Your task to perform on an android device: Check the news Image 0: 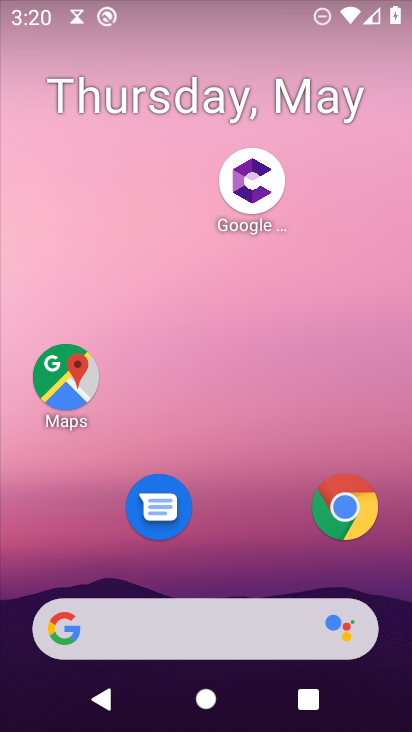
Step 0: click (154, 627)
Your task to perform on an android device: Check the news Image 1: 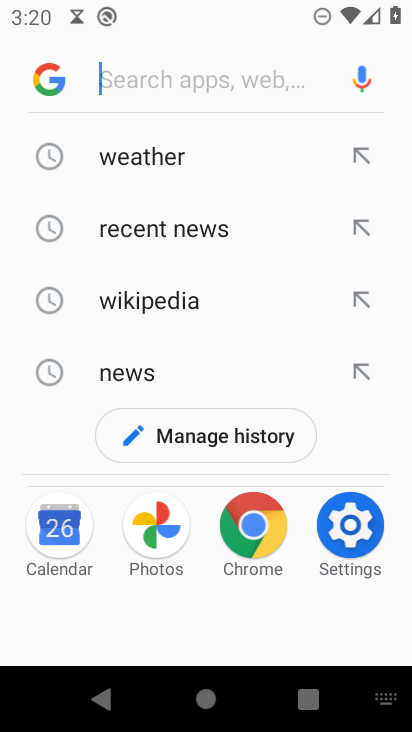
Step 1: click (125, 375)
Your task to perform on an android device: Check the news Image 2: 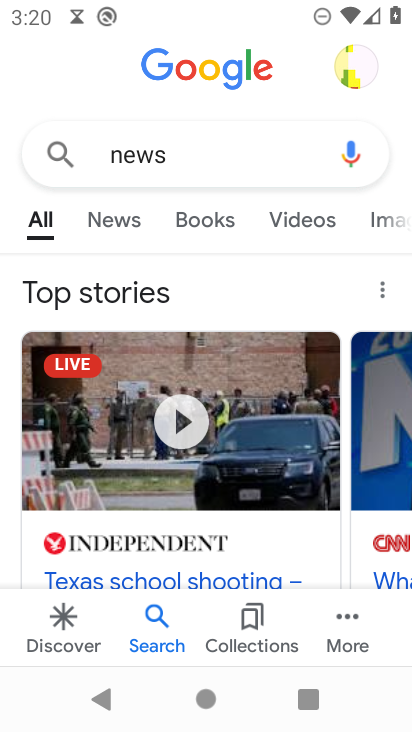
Step 2: task complete